Your task to perform on an android device: open a new tab in the chrome app Image 0: 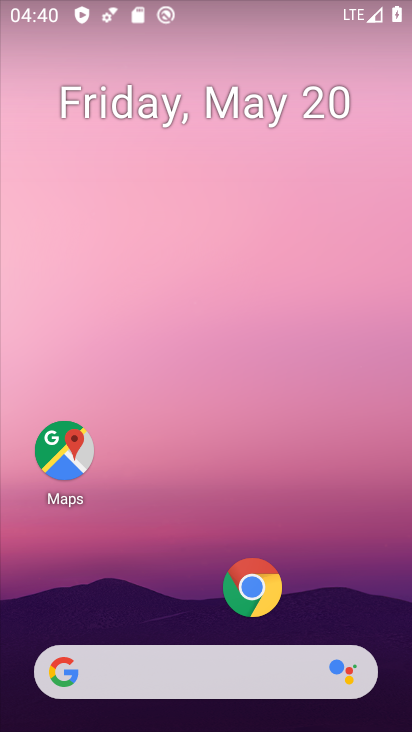
Step 0: click (242, 587)
Your task to perform on an android device: open a new tab in the chrome app Image 1: 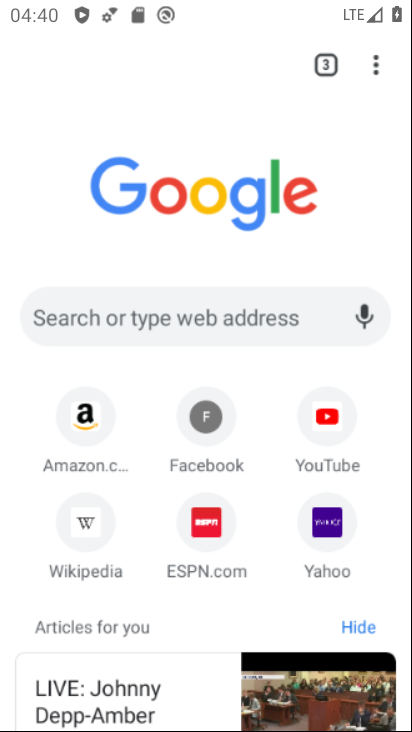
Step 1: click (257, 578)
Your task to perform on an android device: open a new tab in the chrome app Image 2: 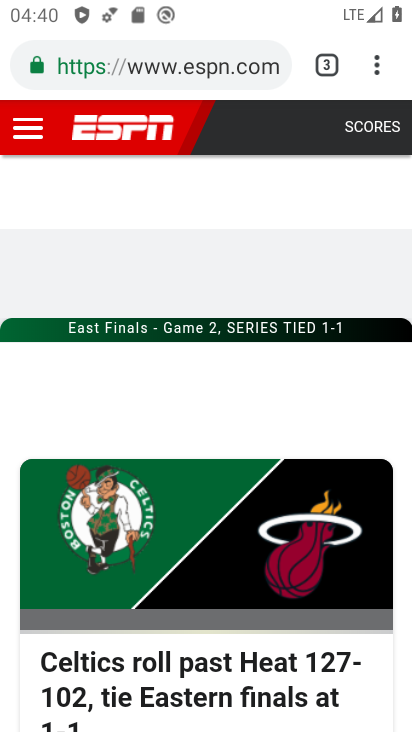
Step 2: task complete